Your task to perform on an android device: Open maps Image 0: 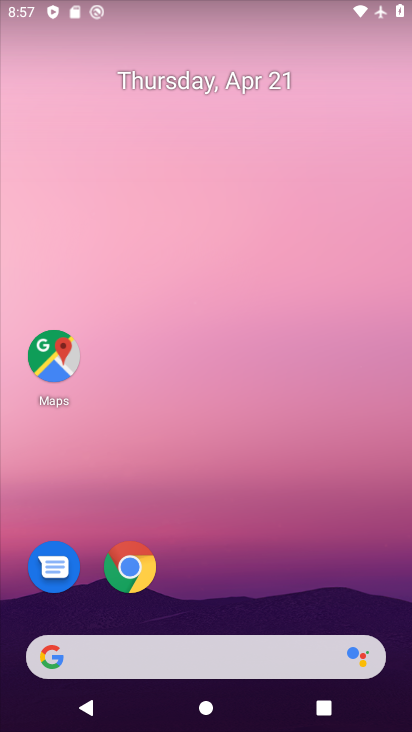
Step 0: click (51, 350)
Your task to perform on an android device: Open maps Image 1: 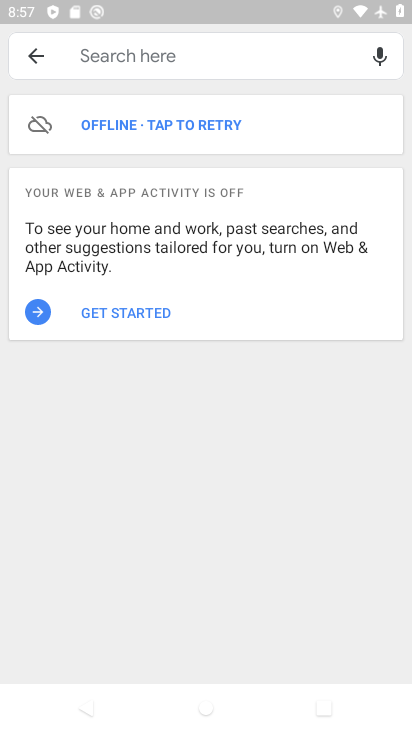
Step 1: click (194, 126)
Your task to perform on an android device: Open maps Image 2: 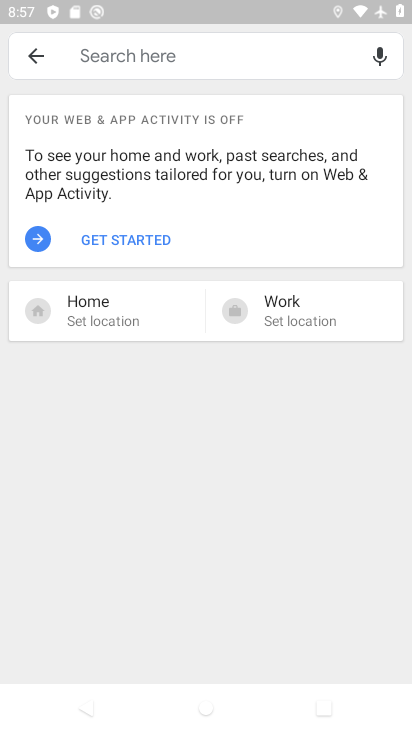
Step 2: task complete